Your task to perform on an android device: Turn off the flashlight Image 0: 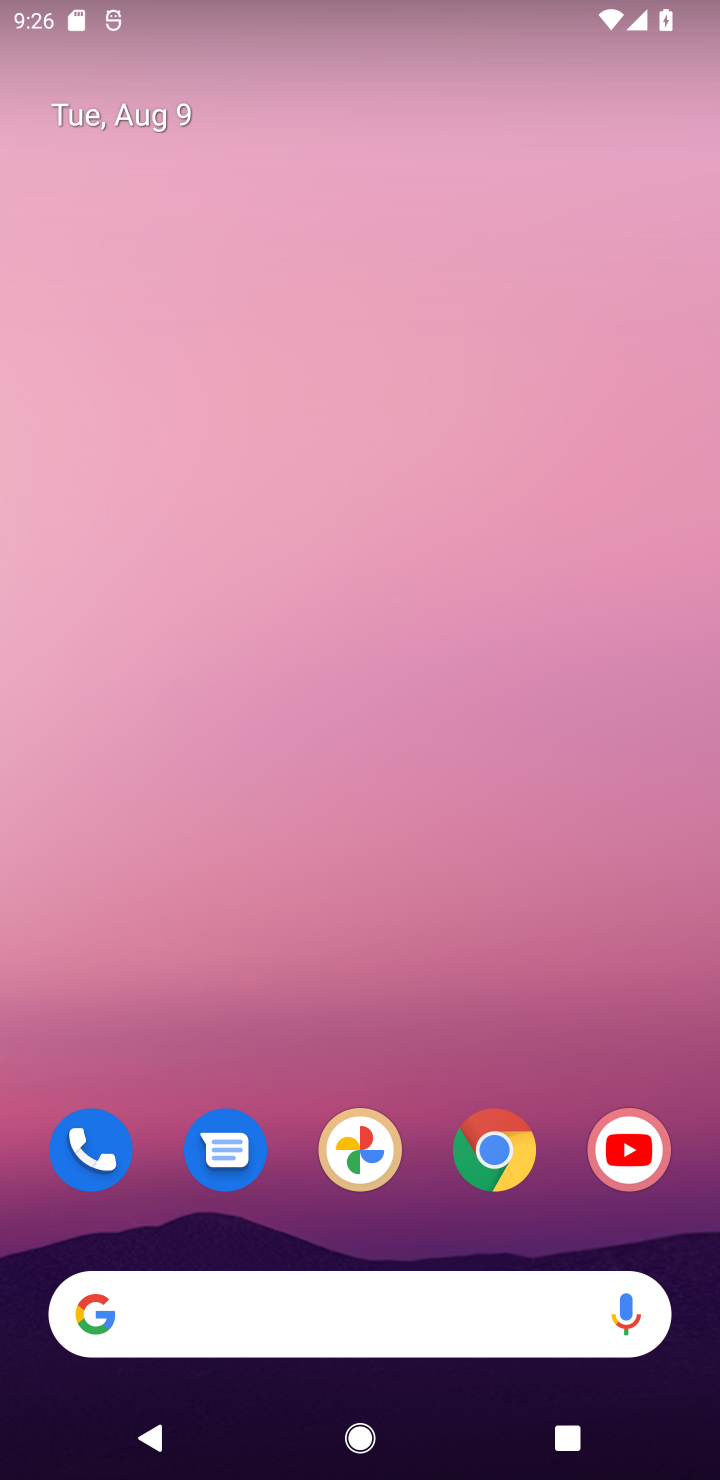
Step 0: drag from (319, 12) to (613, 974)
Your task to perform on an android device: Turn off the flashlight Image 1: 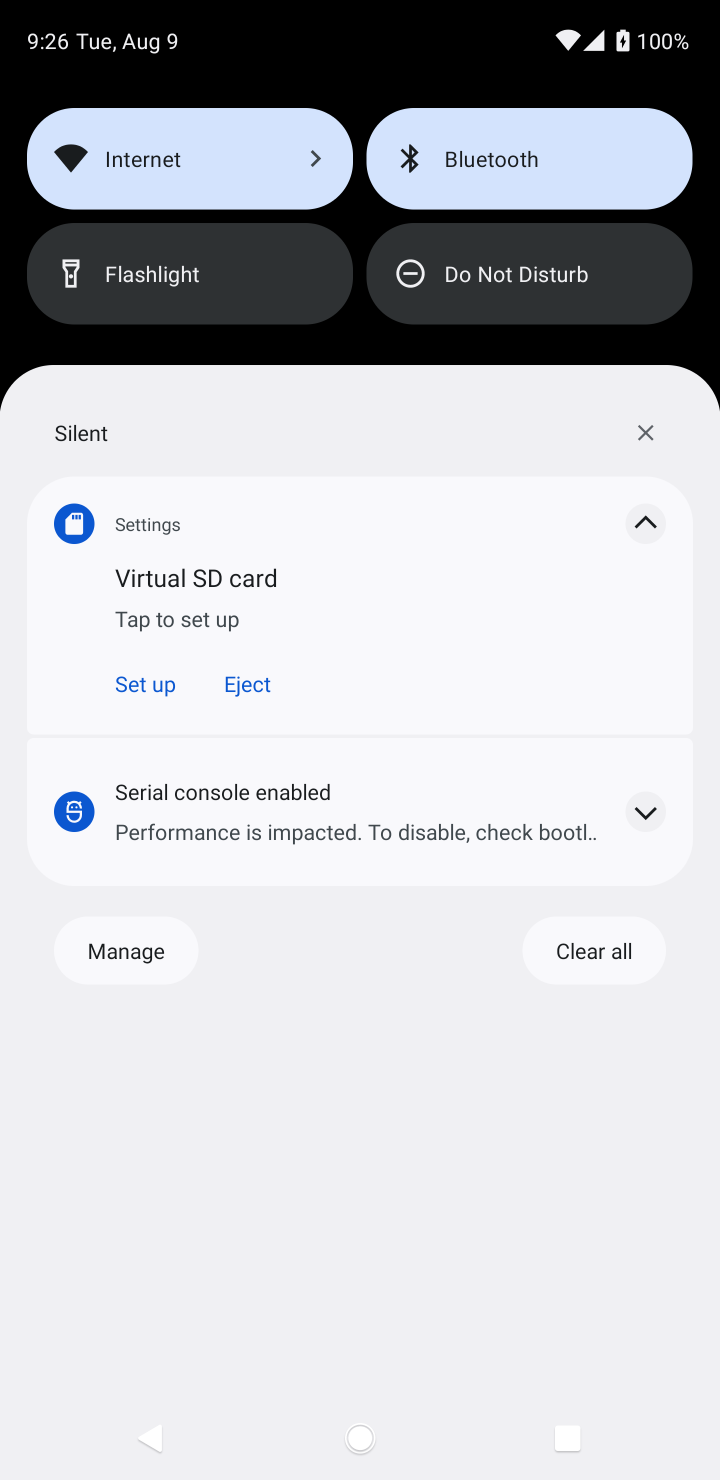
Step 1: task complete